Your task to perform on an android device: Show me popular games on the Play Store Image 0: 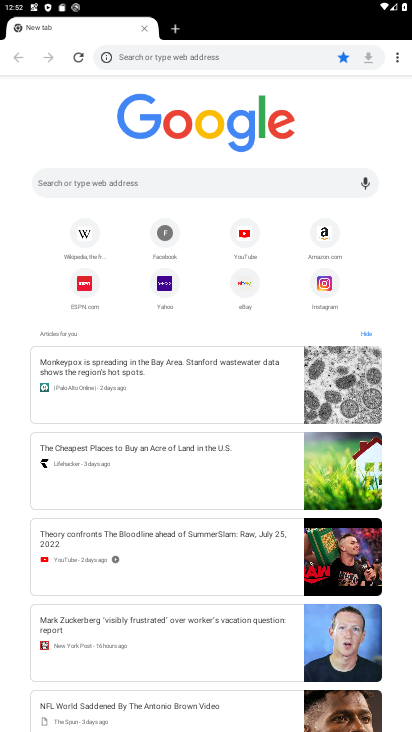
Step 0: press home button
Your task to perform on an android device: Show me popular games on the Play Store Image 1: 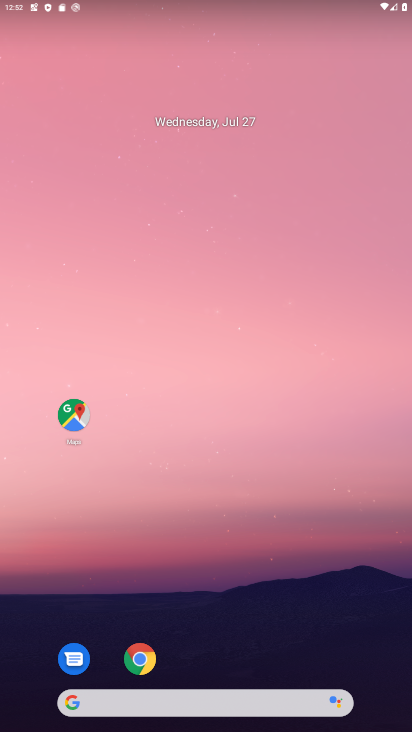
Step 1: drag from (245, 657) to (351, 156)
Your task to perform on an android device: Show me popular games on the Play Store Image 2: 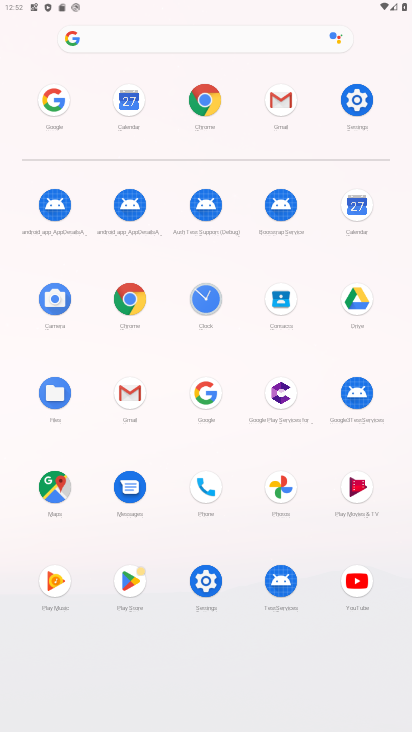
Step 2: click (131, 578)
Your task to perform on an android device: Show me popular games on the Play Store Image 3: 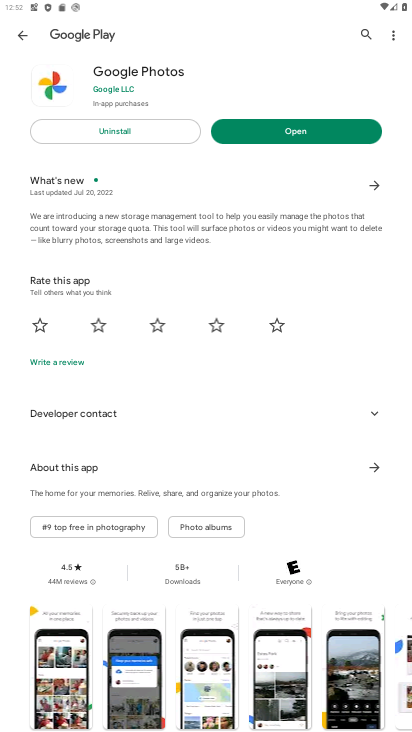
Step 3: click (26, 36)
Your task to perform on an android device: Show me popular games on the Play Store Image 4: 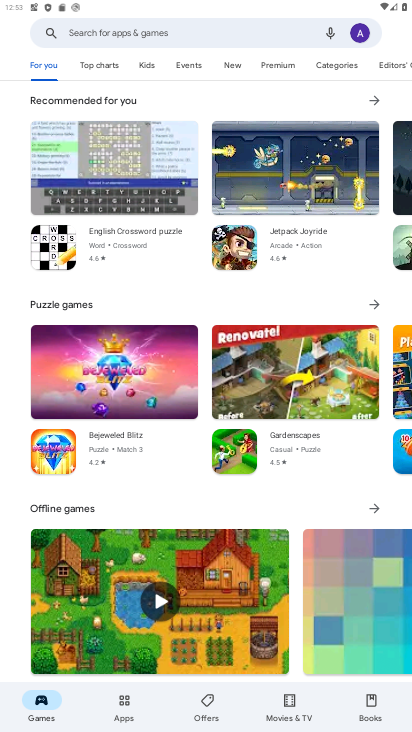
Step 4: click (59, 701)
Your task to perform on an android device: Show me popular games on the Play Store Image 5: 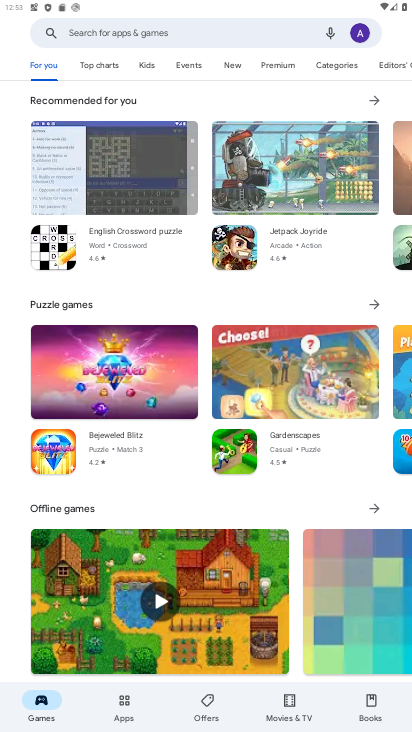
Step 5: task complete